Your task to perform on an android device: What's the price of the new iPhone Image 0: 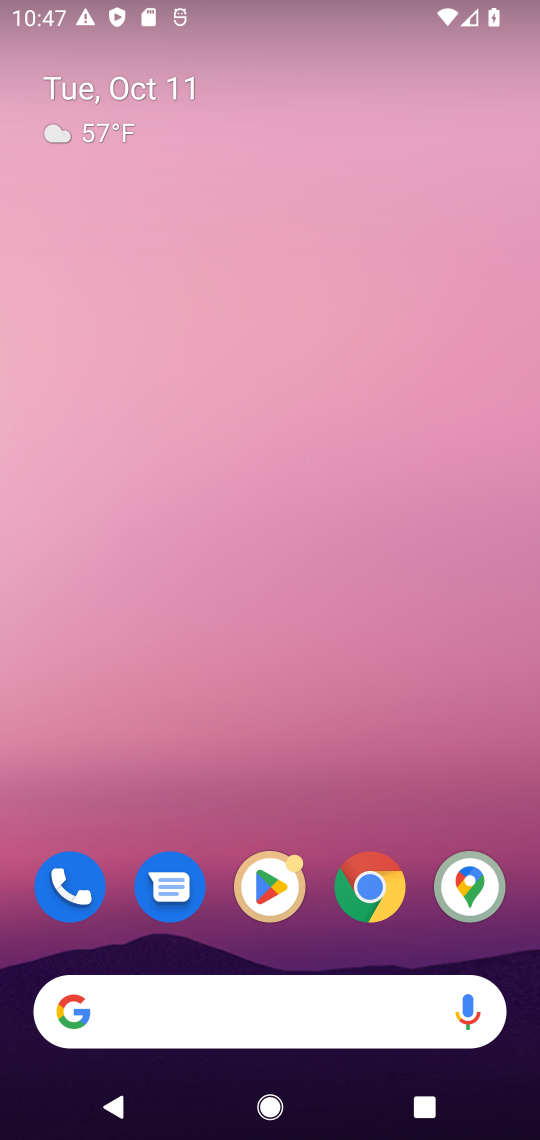
Step 0: press home button
Your task to perform on an android device: What's the price of the new iPhone Image 1: 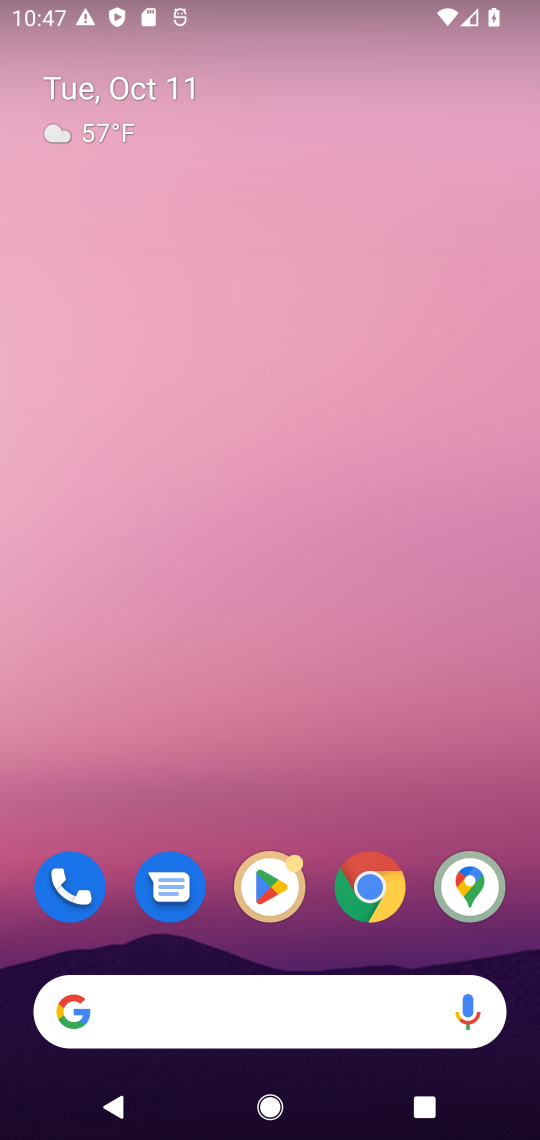
Step 1: click (319, 1014)
Your task to perform on an android device: What's the price of the new iPhone Image 2: 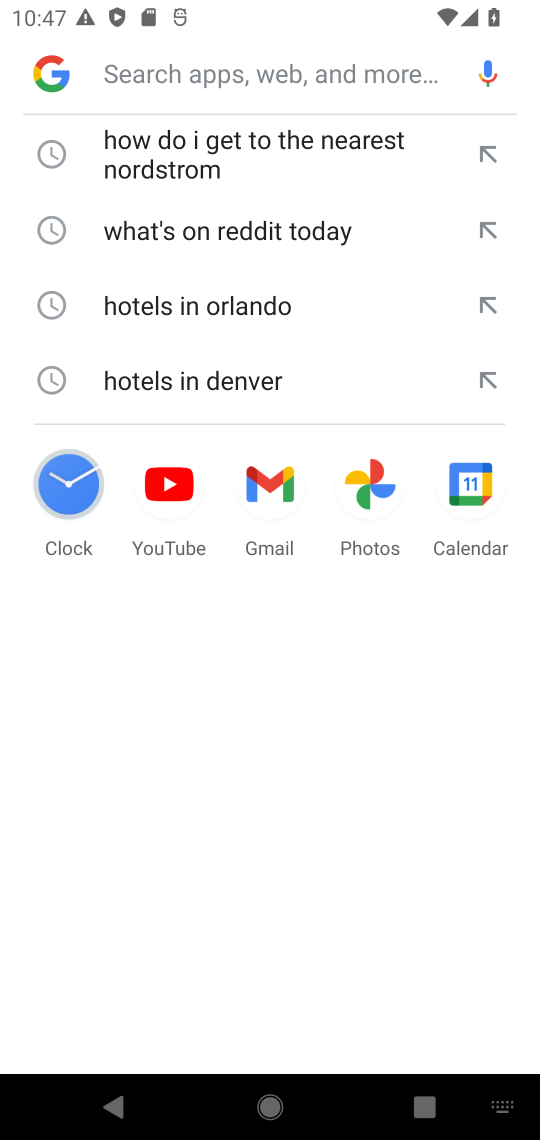
Step 2: type "What's the price of the new iPhone"
Your task to perform on an android device: What's the price of the new iPhone Image 3: 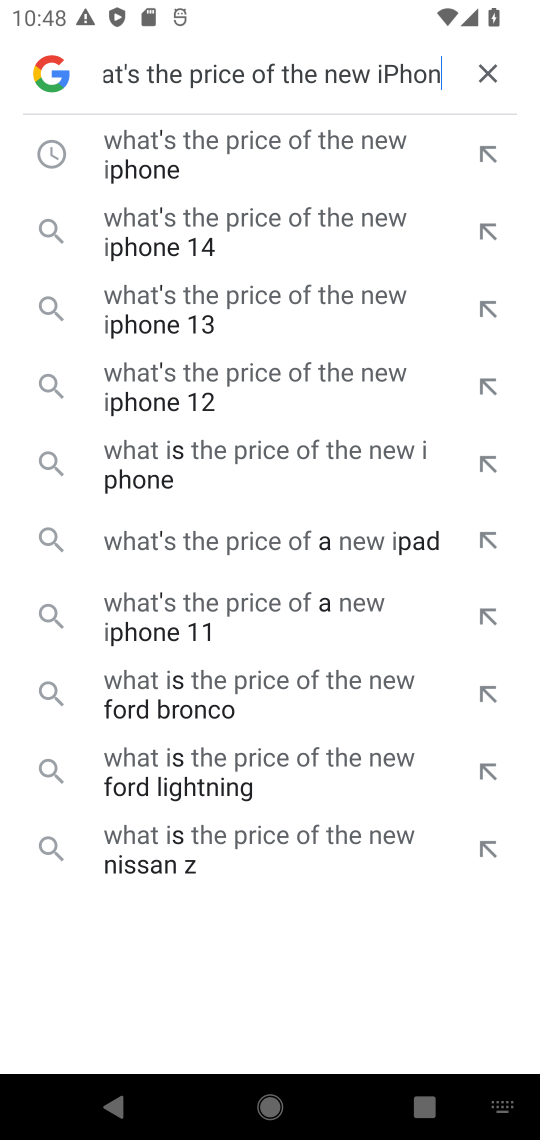
Step 3: press enter
Your task to perform on an android device: What's the price of the new iPhone Image 4: 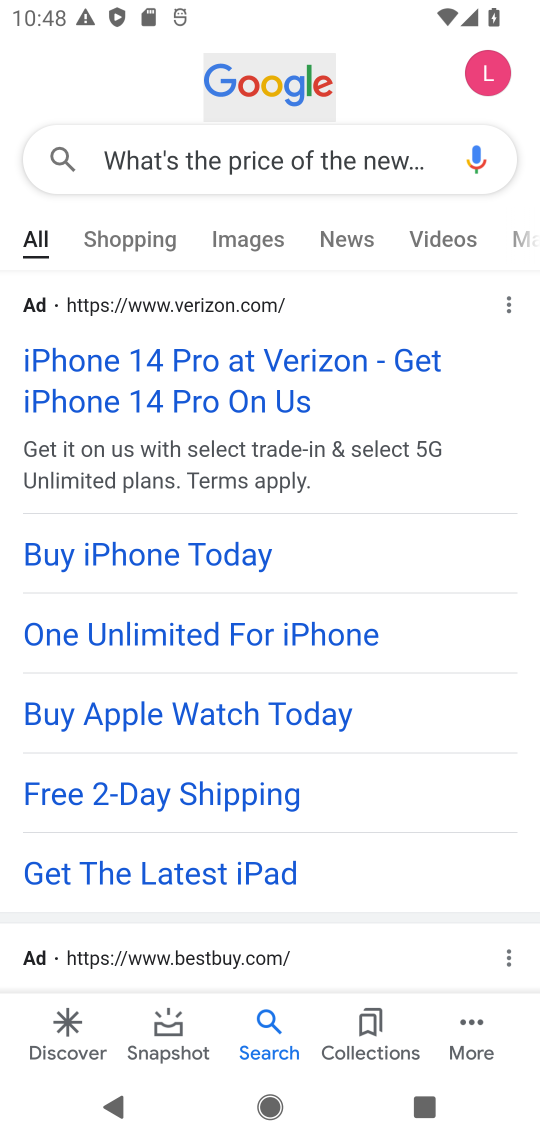
Step 4: drag from (463, 754) to (462, 495)
Your task to perform on an android device: What's the price of the new iPhone Image 5: 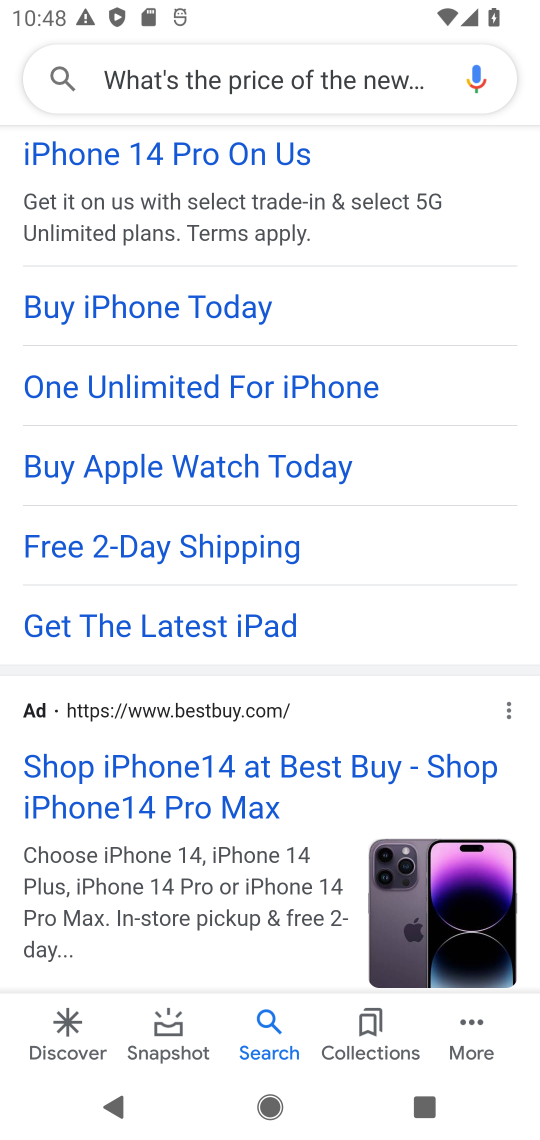
Step 5: drag from (330, 831) to (345, 543)
Your task to perform on an android device: What's the price of the new iPhone Image 6: 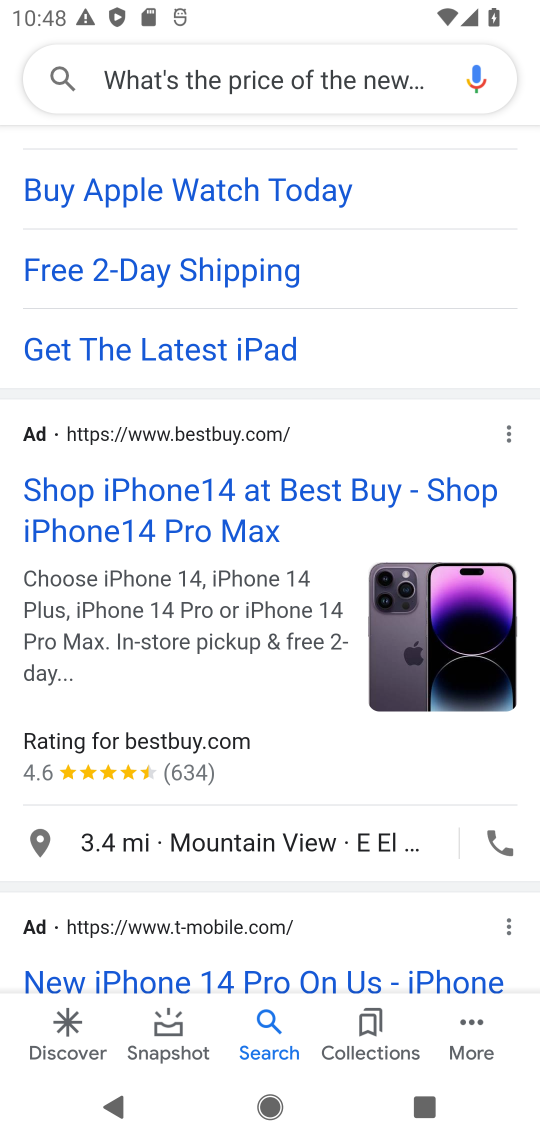
Step 6: click (151, 532)
Your task to perform on an android device: What's the price of the new iPhone Image 7: 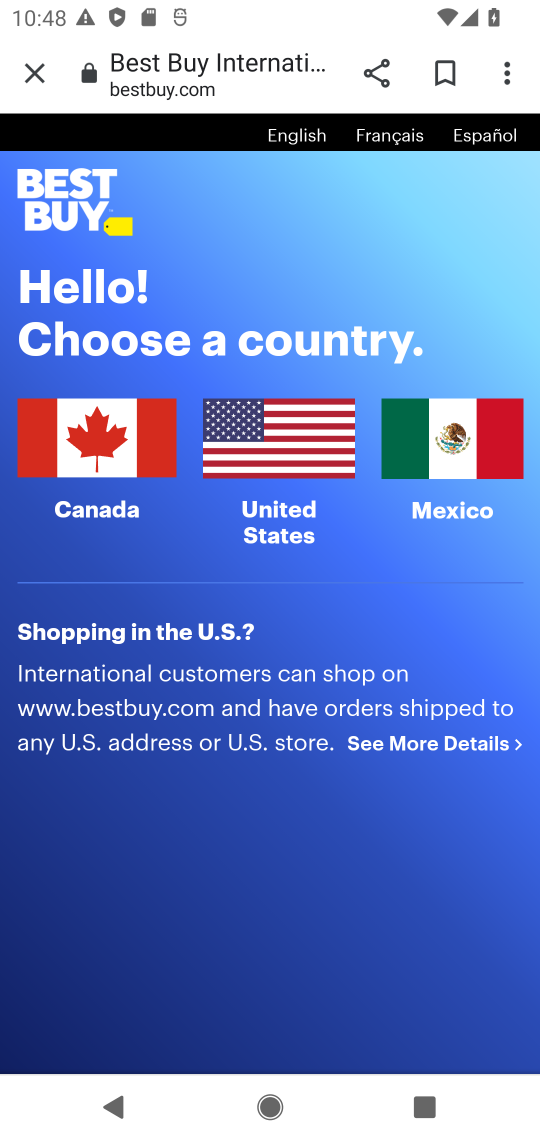
Step 7: click (116, 482)
Your task to perform on an android device: What's the price of the new iPhone Image 8: 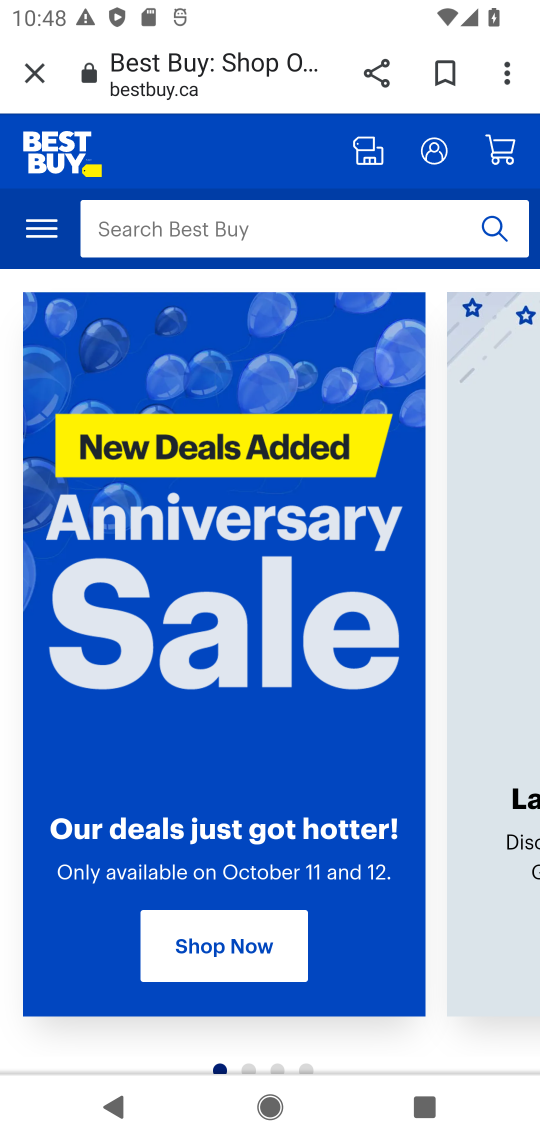
Step 8: task complete